Your task to perform on an android device: What's the weather going to be tomorrow? Image 0: 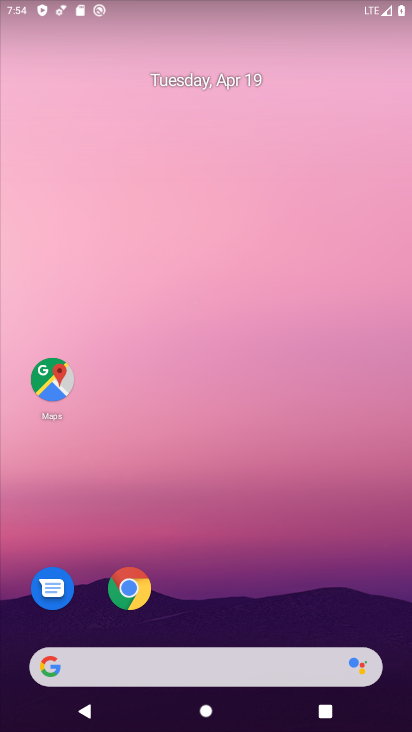
Step 0: press home button
Your task to perform on an android device: What's the weather going to be tomorrow? Image 1: 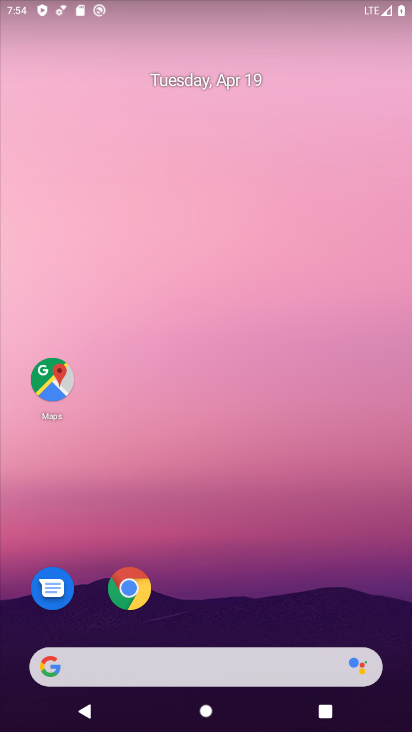
Step 1: drag from (2, 223) to (361, 253)
Your task to perform on an android device: What's the weather going to be tomorrow? Image 2: 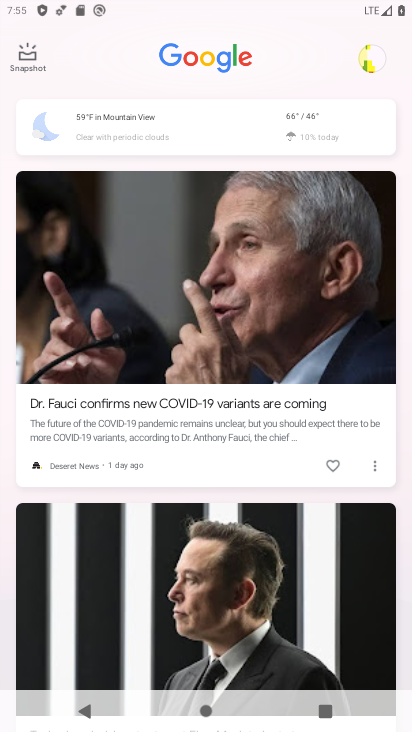
Step 2: click (272, 118)
Your task to perform on an android device: What's the weather going to be tomorrow? Image 3: 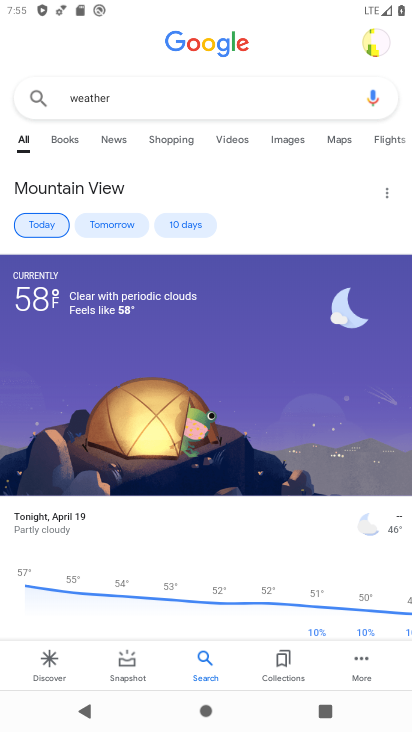
Step 3: click (118, 221)
Your task to perform on an android device: What's the weather going to be tomorrow? Image 4: 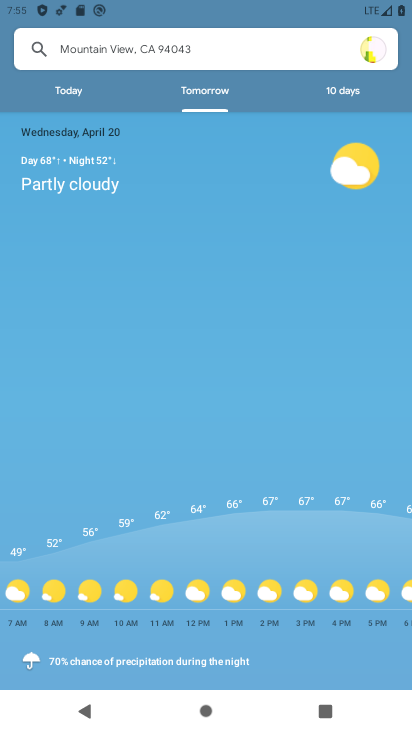
Step 4: drag from (195, 534) to (238, 202)
Your task to perform on an android device: What's the weather going to be tomorrow? Image 5: 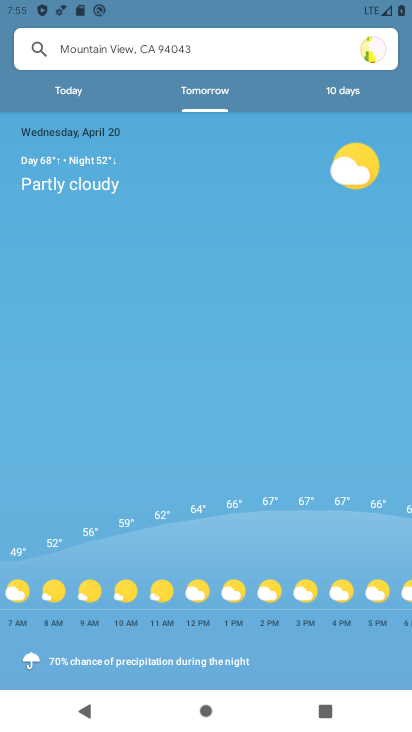
Step 5: drag from (214, 528) to (254, 180)
Your task to perform on an android device: What's the weather going to be tomorrow? Image 6: 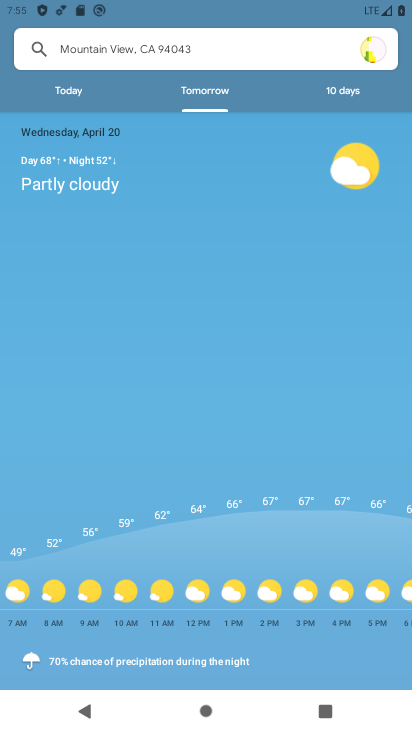
Step 6: drag from (330, 597) to (44, 588)
Your task to perform on an android device: What's the weather going to be tomorrow? Image 7: 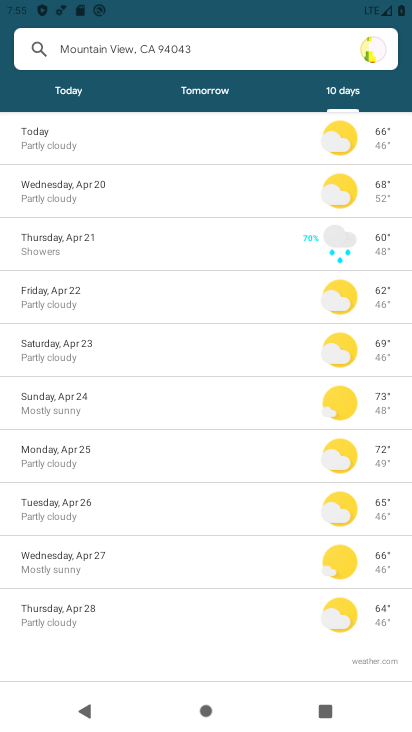
Step 7: click (201, 89)
Your task to perform on an android device: What's the weather going to be tomorrow? Image 8: 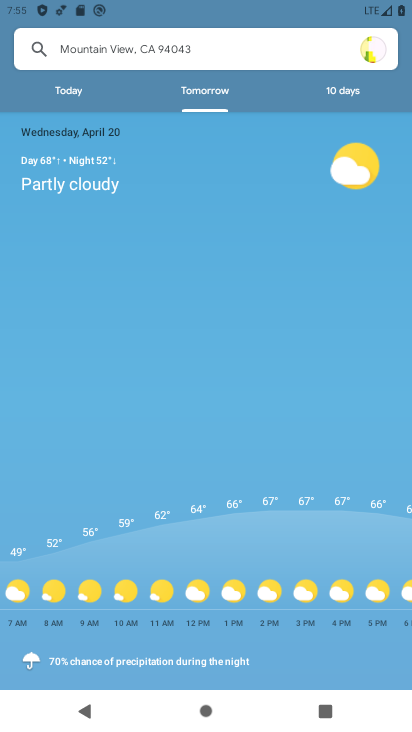
Step 8: task complete